Your task to perform on an android device: make emails show in primary in the gmail app Image 0: 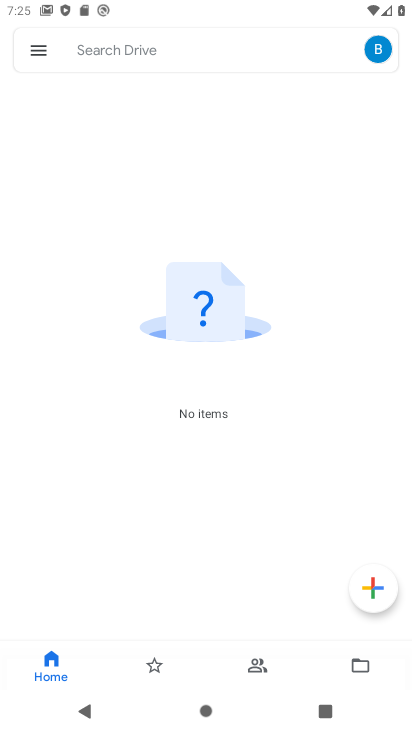
Step 0: press home button
Your task to perform on an android device: make emails show in primary in the gmail app Image 1: 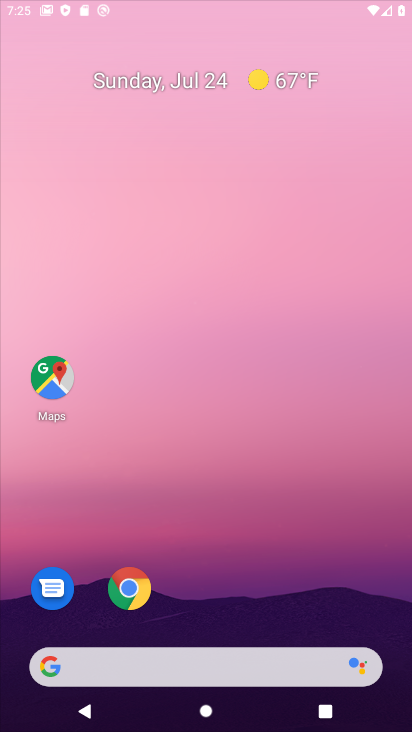
Step 1: drag from (136, 672) to (169, 310)
Your task to perform on an android device: make emails show in primary in the gmail app Image 2: 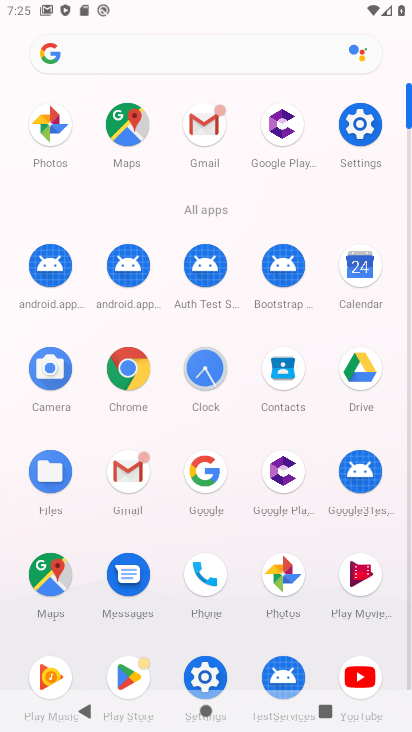
Step 2: click (194, 146)
Your task to perform on an android device: make emails show in primary in the gmail app Image 3: 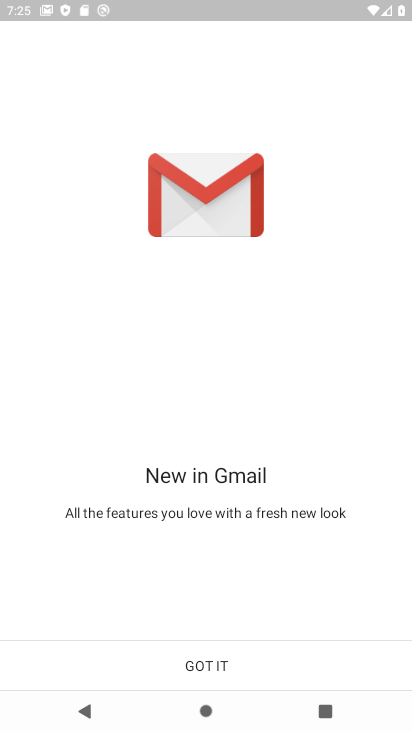
Step 3: click (202, 657)
Your task to perform on an android device: make emails show in primary in the gmail app Image 4: 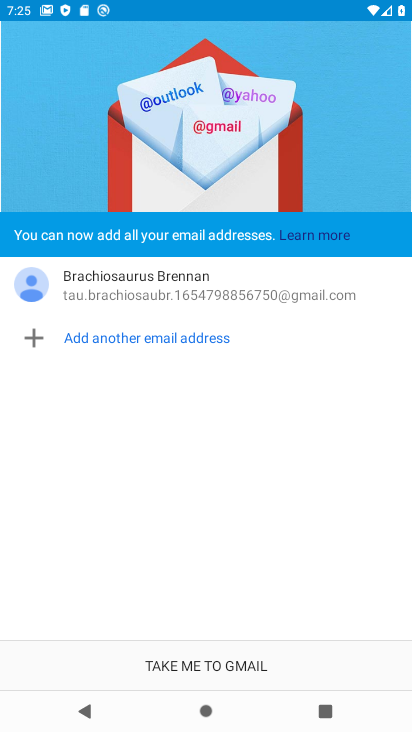
Step 4: click (236, 651)
Your task to perform on an android device: make emails show in primary in the gmail app Image 5: 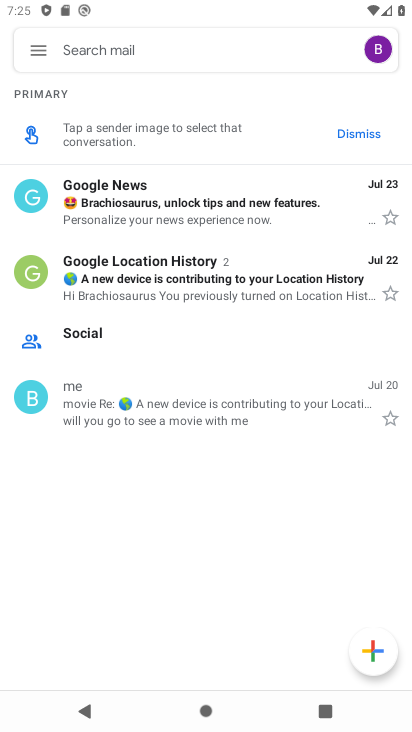
Step 5: click (36, 58)
Your task to perform on an android device: make emails show in primary in the gmail app Image 6: 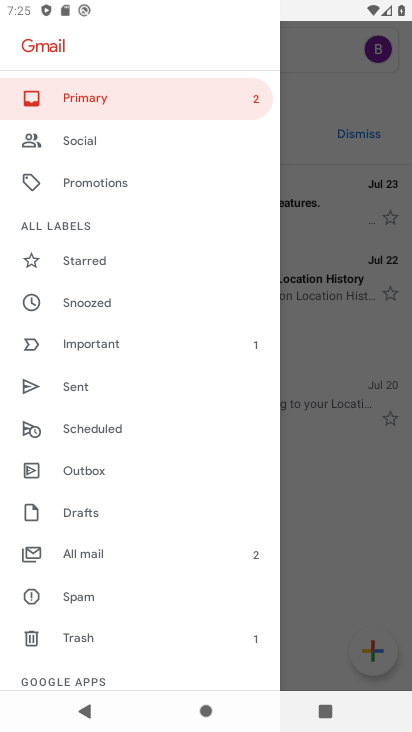
Step 6: drag from (87, 630) to (138, 373)
Your task to perform on an android device: make emails show in primary in the gmail app Image 7: 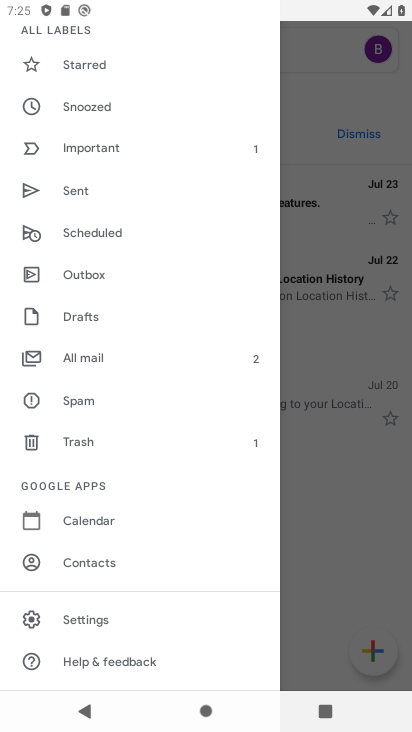
Step 7: click (98, 617)
Your task to perform on an android device: make emails show in primary in the gmail app Image 8: 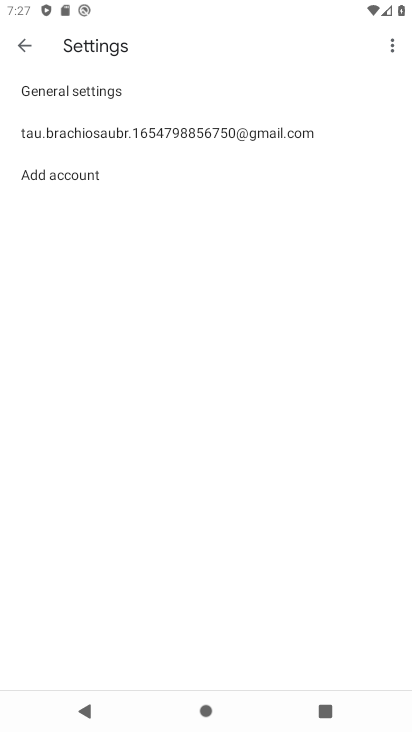
Step 8: click (245, 136)
Your task to perform on an android device: make emails show in primary in the gmail app Image 9: 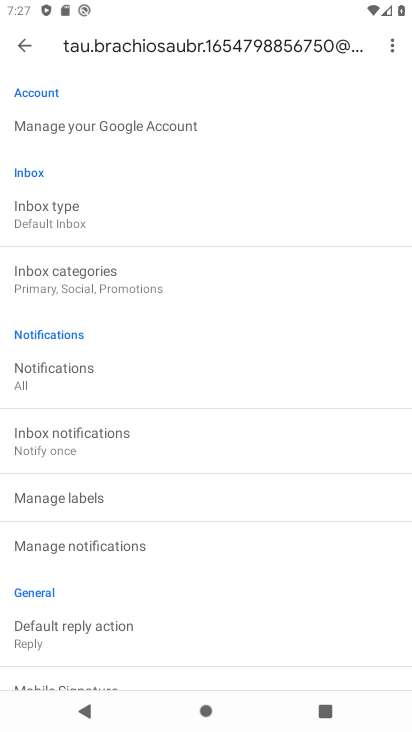
Step 9: task complete